Your task to perform on an android device: Open Google Maps and go to "Timeline" Image 0: 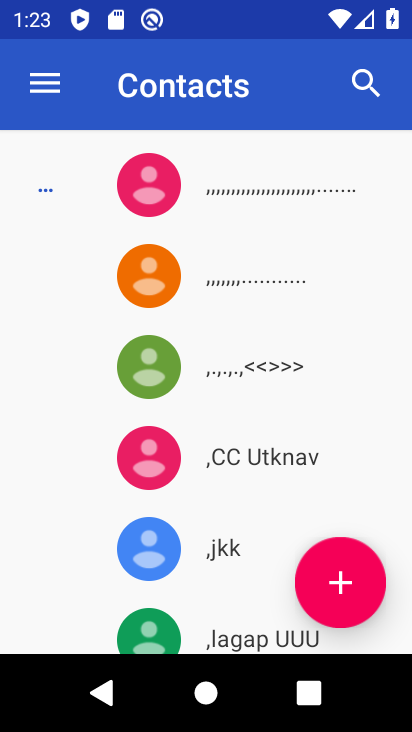
Step 0: press back button
Your task to perform on an android device: Open Google Maps and go to "Timeline" Image 1: 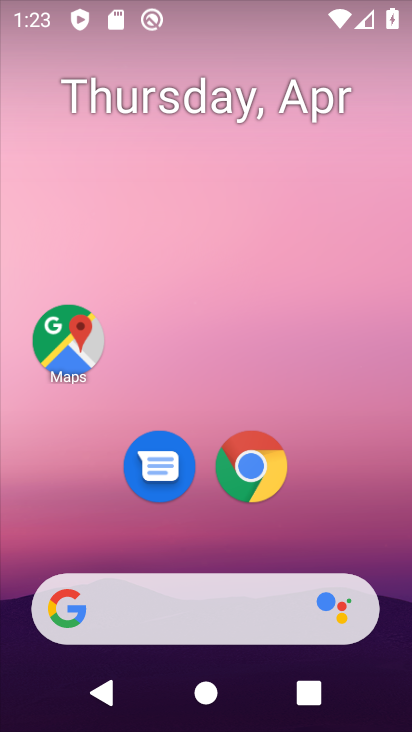
Step 1: click (66, 336)
Your task to perform on an android device: Open Google Maps and go to "Timeline" Image 2: 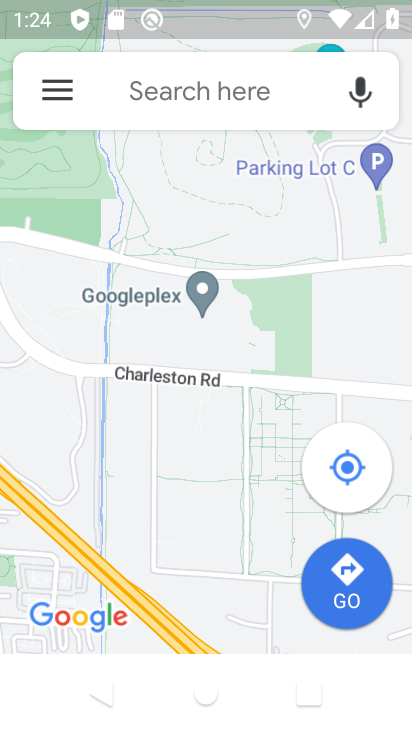
Step 2: click (46, 92)
Your task to perform on an android device: Open Google Maps and go to "Timeline" Image 3: 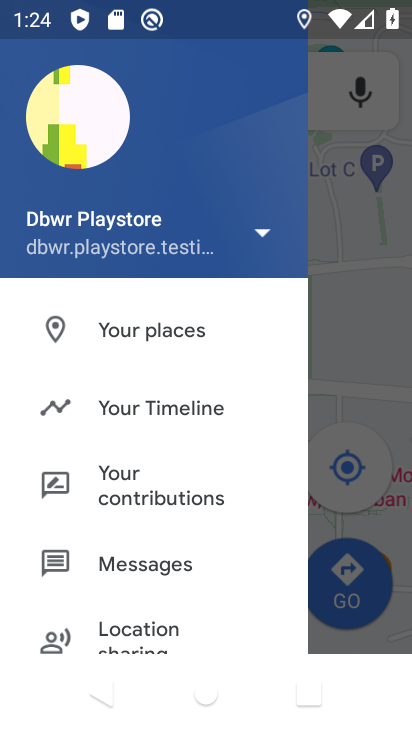
Step 3: click (176, 402)
Your task to perform on an android device: Open Google Maps and go to "Timeline" Image 4: 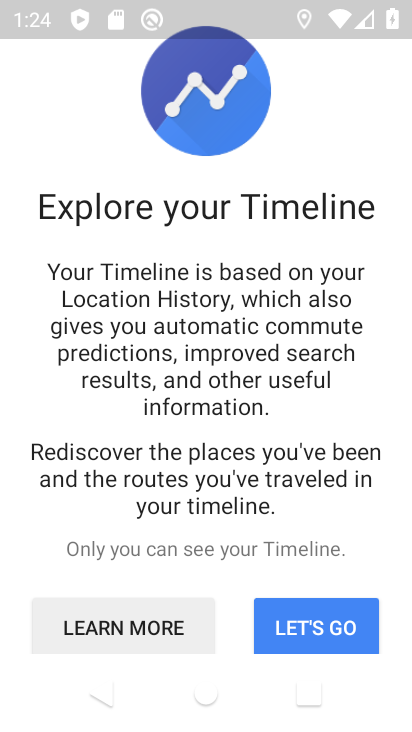
Step 4: click (328, 632)
Your task to perform on an android device: Open Google Maps and go to "Timeline" Image 5: 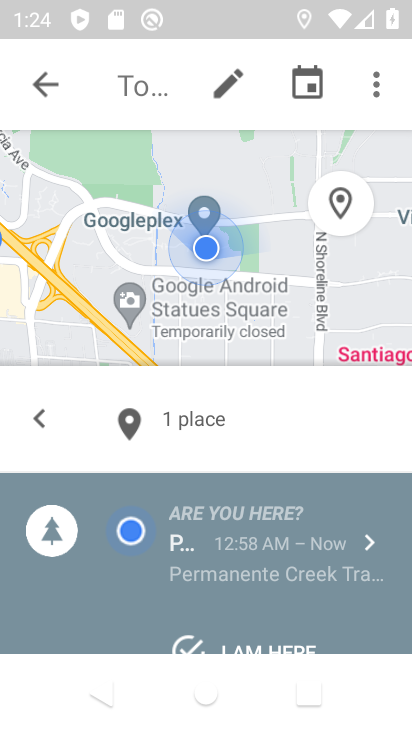
Step 5: task complete